Your task to perform on an android device: toggle airplane mode Image 0: 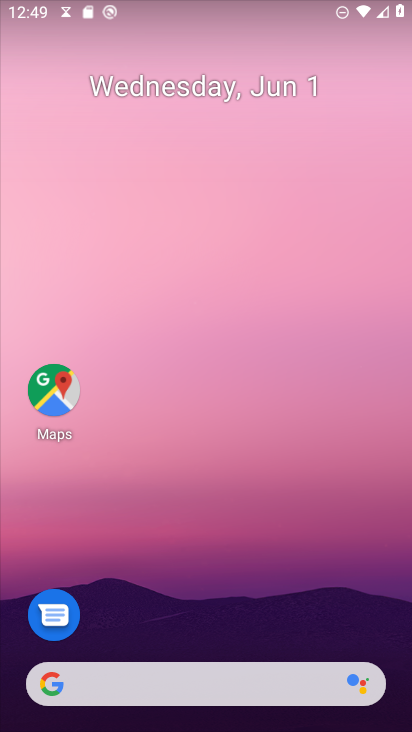
Step 0: drag from (231, 595) to (207, 70)
Your task to perform on an android device: toggle airplane mode Image 1: 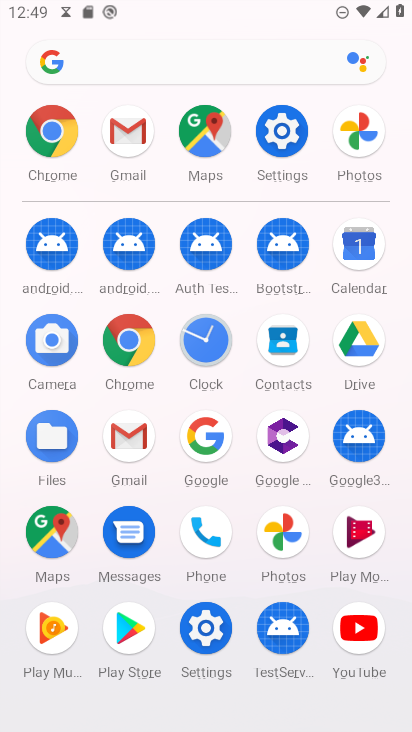
Step 1: click (295, 150)
Your task to perform on an android device: toggle airplane mode Image 2: 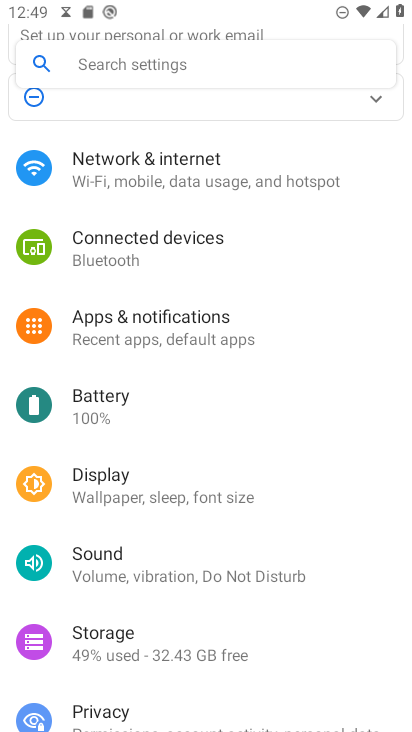
Step 2: click (270, 178)
Your task to perform on an android device: toggle airplane mode Image 3: 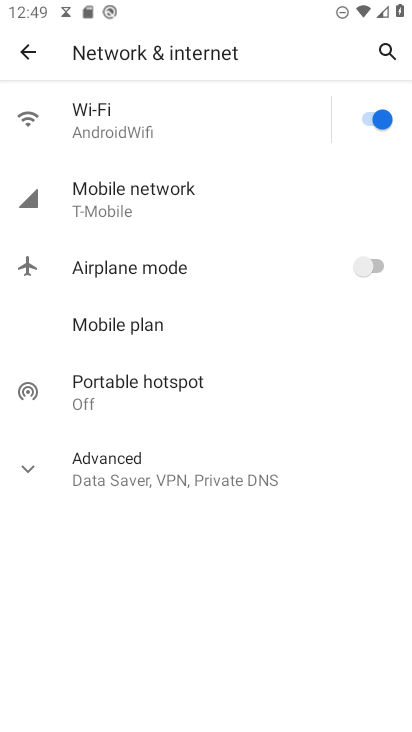
Step 3: click (375, 271)
Your task to perform on an android device: toggle airplane mode Image 4: 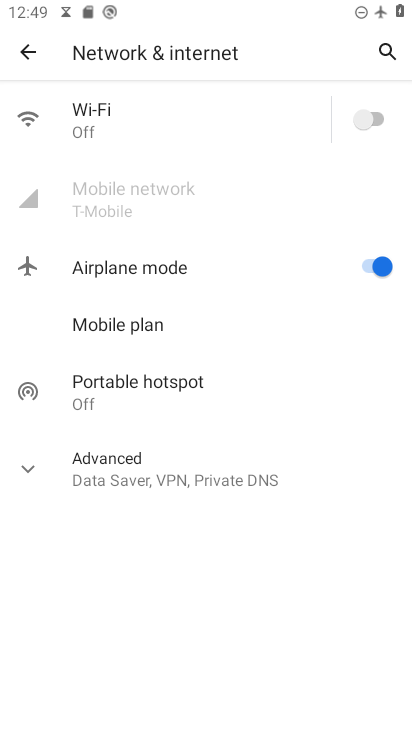
Step 4: task complete